Your task to perform on an android device: Open settings Image 0: 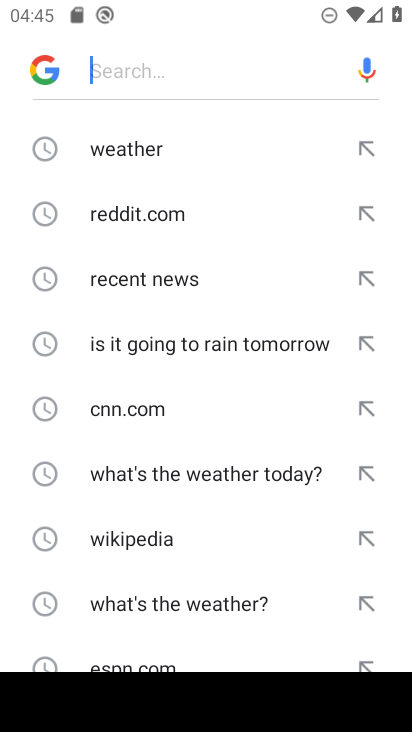
Step 0: press home button
Your task to perform on an android device: Open settings Image 1: 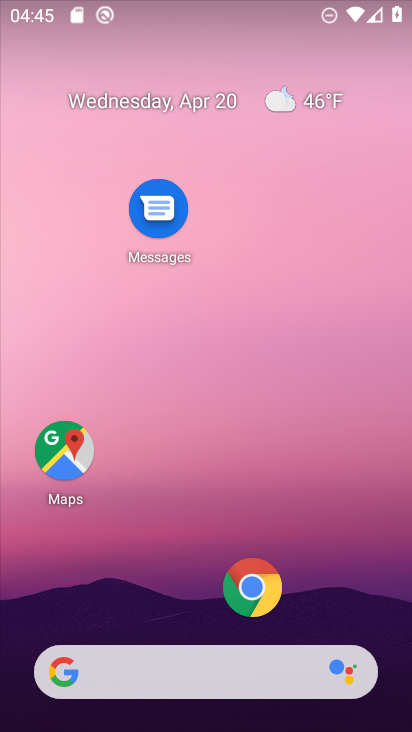
Step 1: drag from (190, 597) to (227, 154)
Your task to perform on an android device: Open settings Image 2: 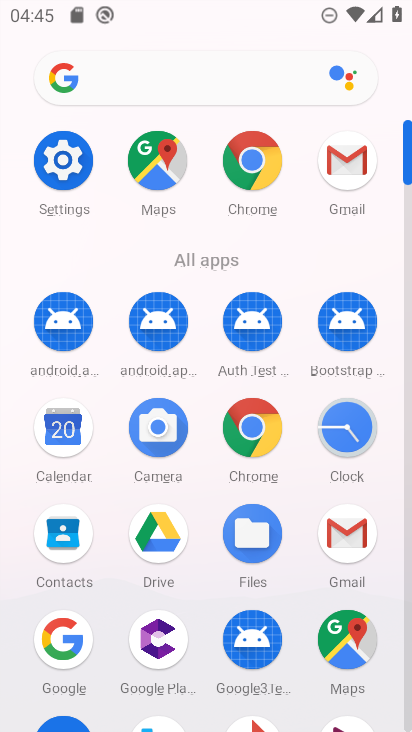
Step 2: click (56, 172)
Your task to perform on an android device: Open settings Image 3: 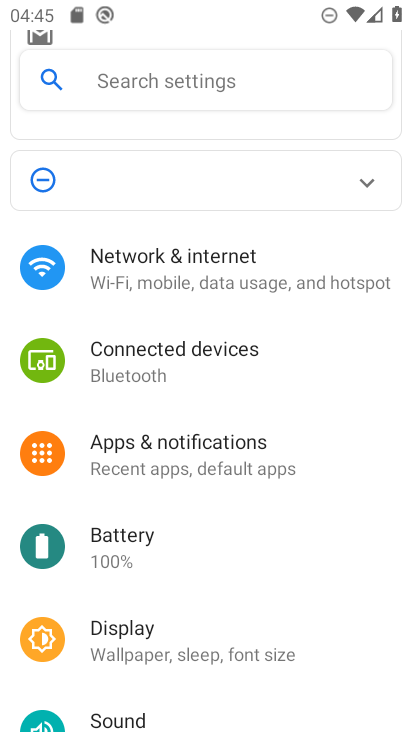
Step 3: task complete